Your task to perform on an android device: Search for vegetarian restaurants on Maps Image 0: 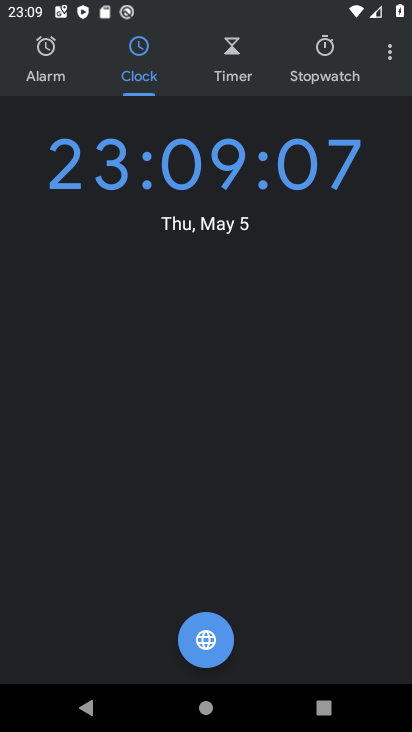
Step 0: press home button
Your task to perform on an android device: Search for vegetarian restaurants on Maps Image 1: 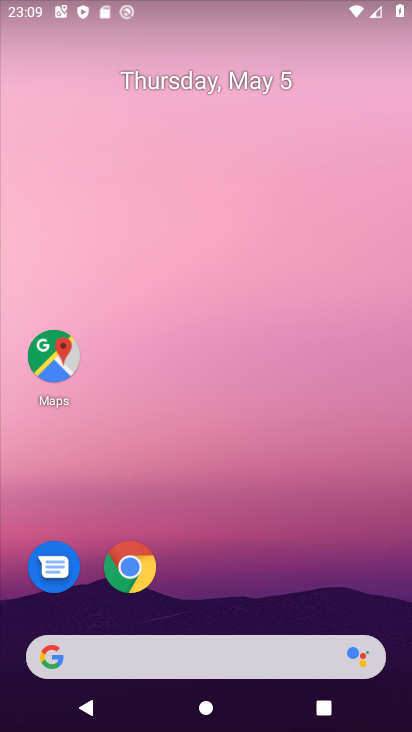
Step 1: click (45, 368)
Your task to perform on an android device: Search for vegetarian restaurants on Maps Image 2: 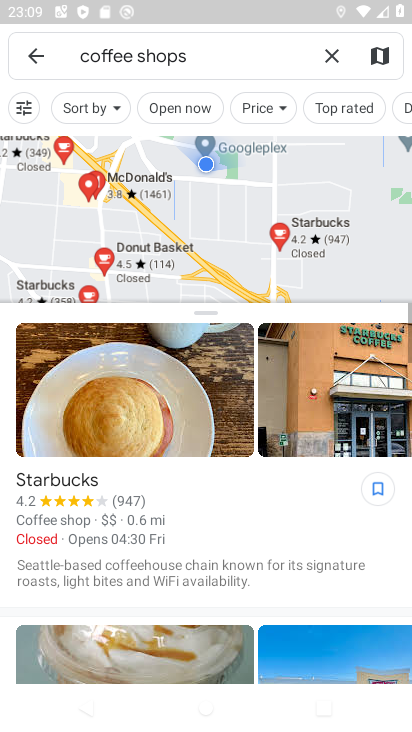
Step 2: click (335, 50)
Your task to perform on an android device: Search for vegetarian restaurants on Maps Image 3: 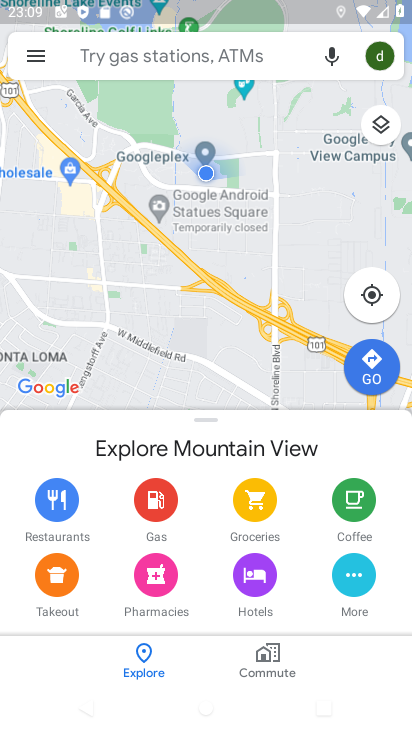
Step 3: type "vegetarian restaurants"
Your task to perform on an android device: Search for vegetarian restaurants on Maps Image 4: 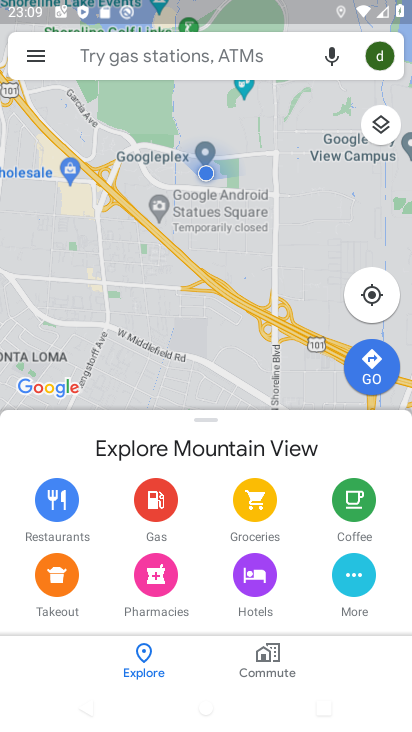
Step 4: click (112, 59)
Your task to perform on an android device: Search for vegetarian restaurants on Maps Image 5: 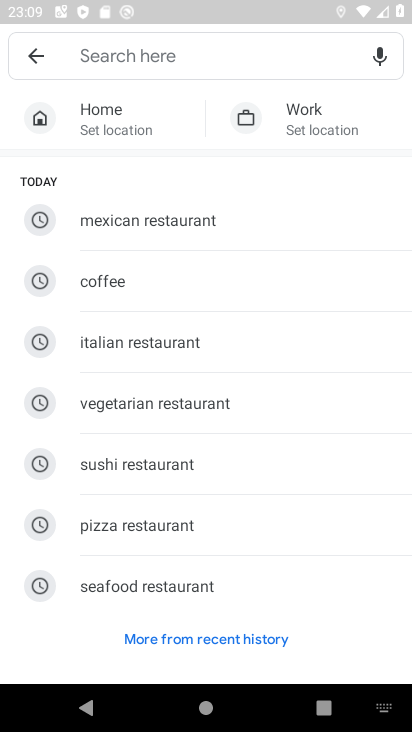
Step 5: click (213, 412)
Your task to perform on an android device: Search for vegetarian restaurants on Maps Image 6: 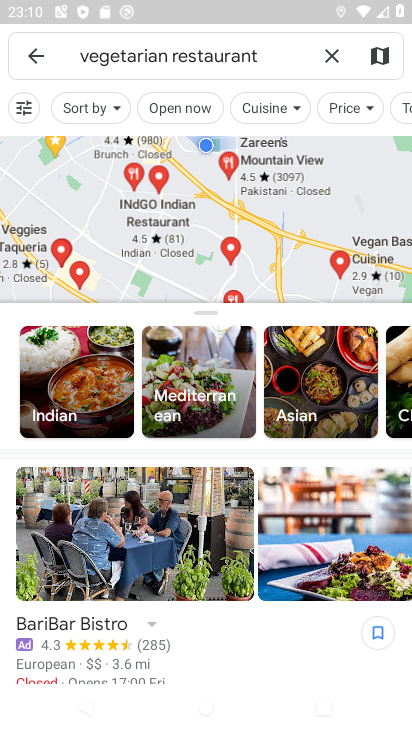
Step 6: task complete